Your task to perform on an android device: show emergency info Image 0: 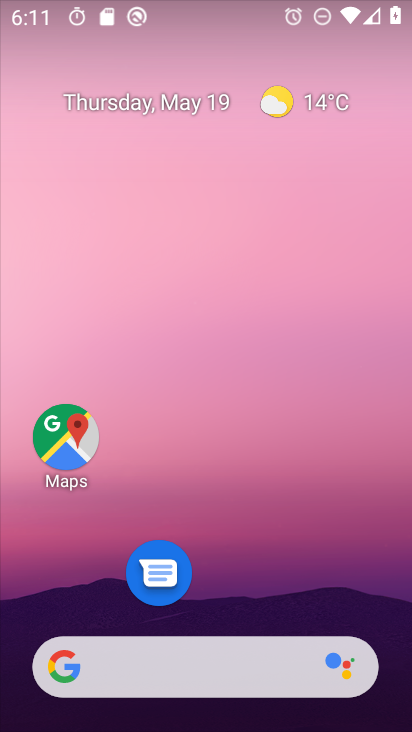
Step 0: drag from (263, 583) to (213, 113)
Your task to perform on an android device: show emergency info Image 1: 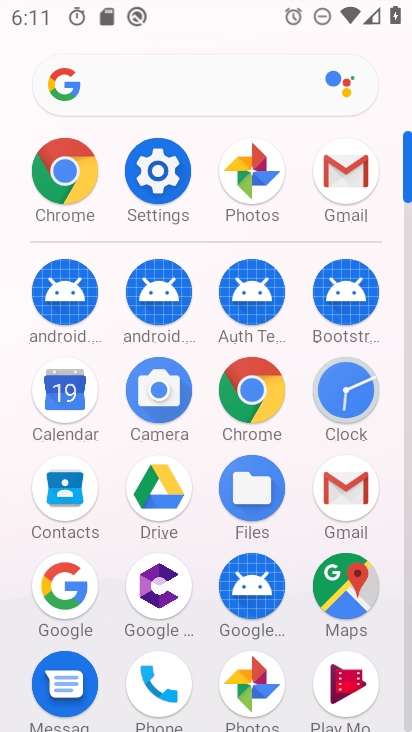
Step 1: click (164, 183)
Your task to perform on an android device: show emergency info Image 2: 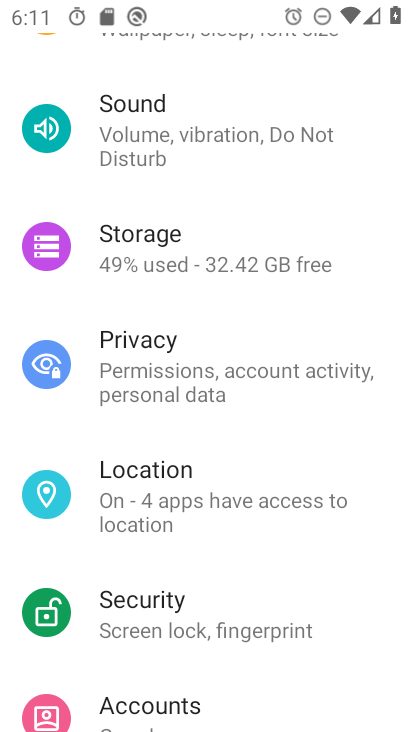
Step 2: drag from (137, 629) to (185, 149)
Your task to perform on an android device: show emergency info Image 3: 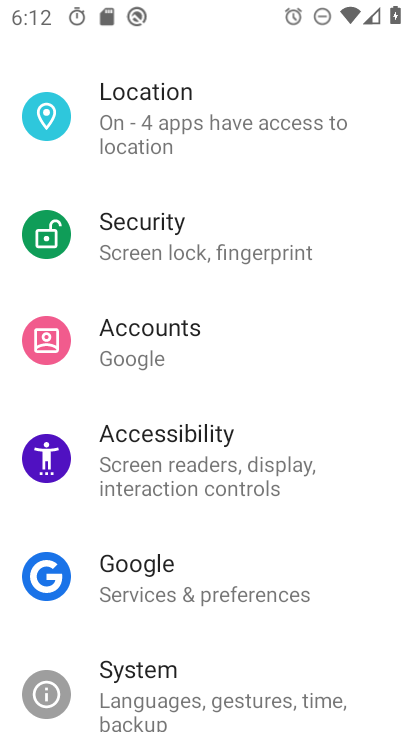
Step 3: drag from (126, 688) to (99, 150)
Your task to perform on an android device: show emergency info Image 4: 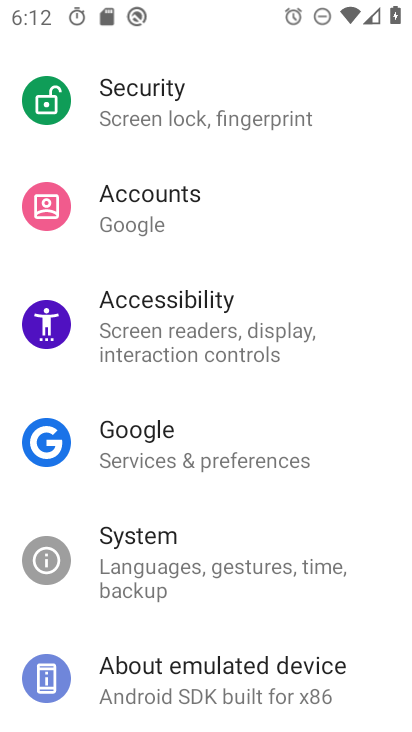
Step 4: click (119, 669)
Your task to perform on an android device: show emergency info Image 5: 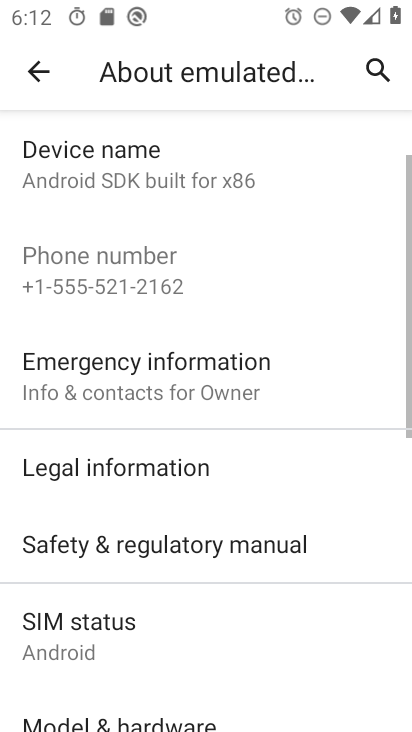
Step 5: drag from (119, 669) to (155, 301)
Your task to perform on an android device: show emergency info Image 6: 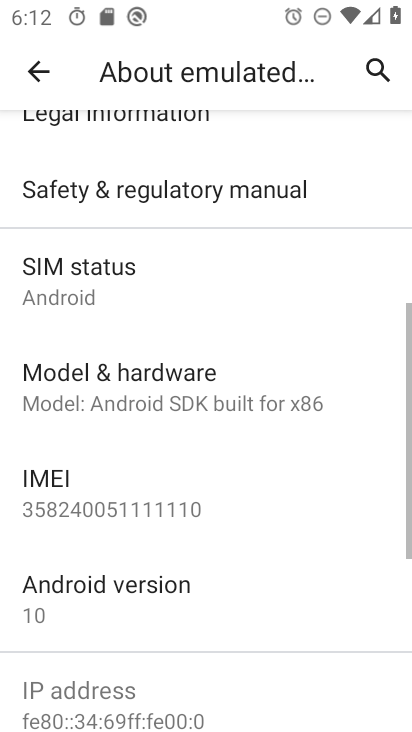
Step 6: drag from (144, 637) to (141, 96)
Your task to perform on an android device: show emergency info Image 7: 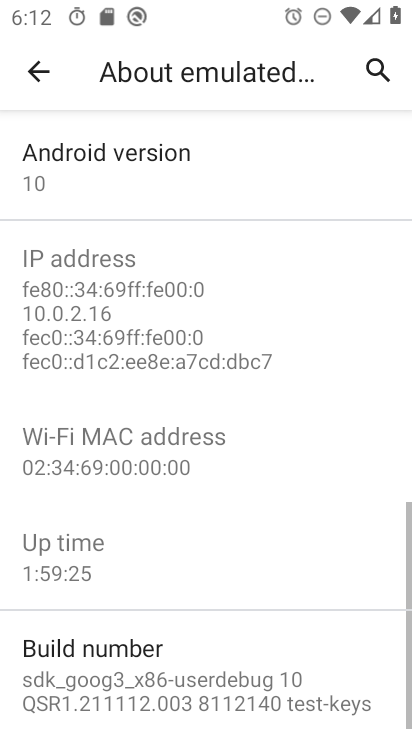
Step 7: drag from (121, 100) to (133, 20)
Your task to perform on an android device: show emergency info Image 8: 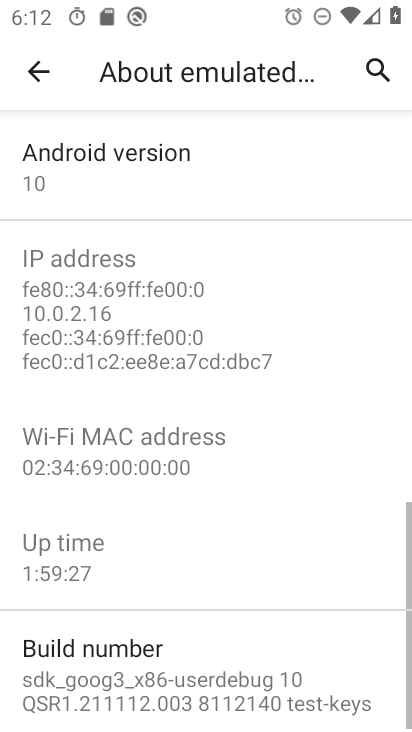
Step 8: drag from (135, 222) to (119, 511)
Your task to perform on an android device: show emergency info Image 9: 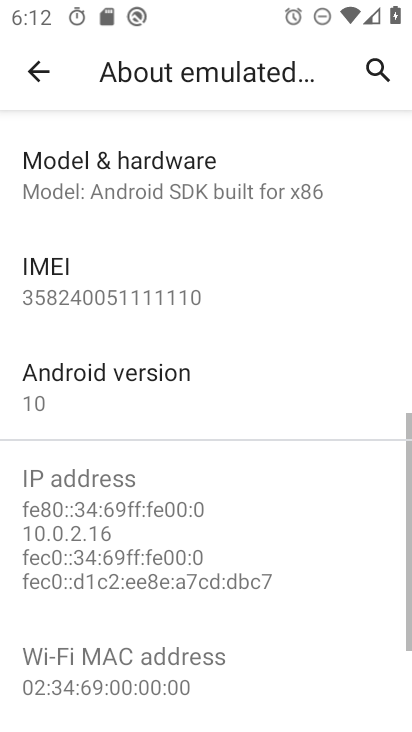
Step 9: drag from (142, 244) to (114, 556)
Your task to perform on an android device: show emergency info Image 10: 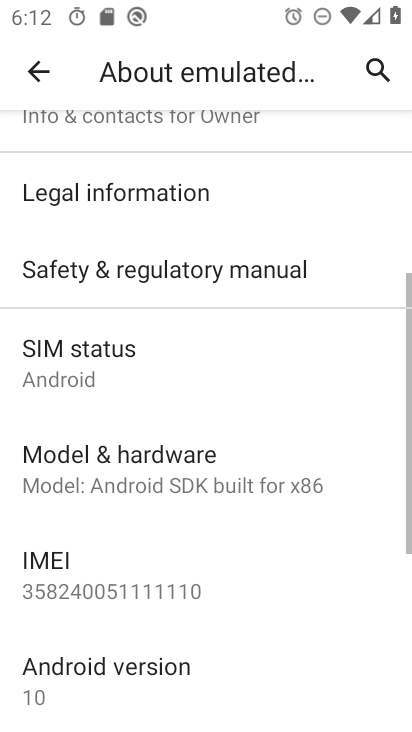
Step 10: drag from (154, 263) to (164, 574)
Your task to perform on an android device: show emergency info Image 11: 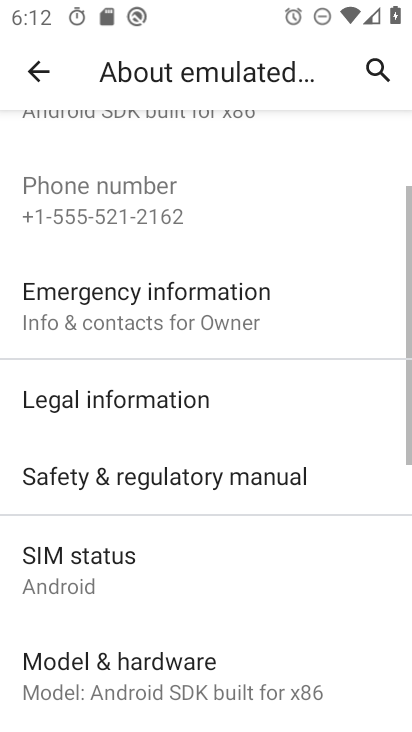
Step 11: drag from (144, 244) to (101, 632)
Your task to perform on an android device: show emergency info Image 12: 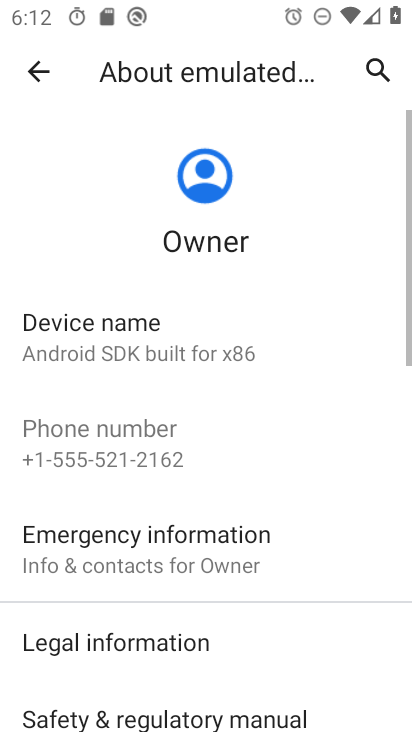
Step 12: click (121, 568)
Your task to perform on an android device: show emergency info Image 13: 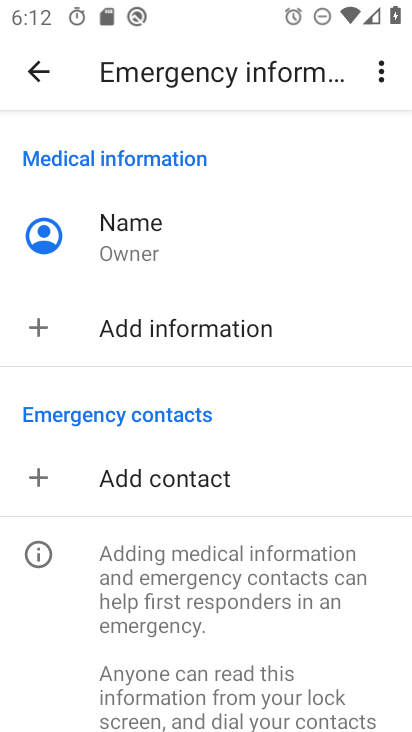
Step 13: task complete